Your task to perform on an android device: toggle location history Image 0: 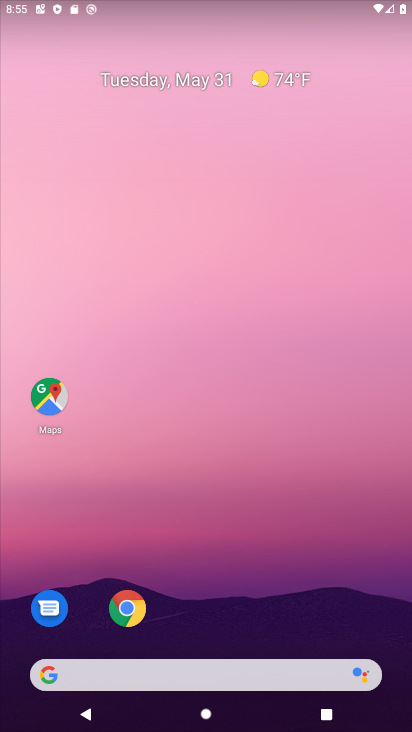
Step 0: drag from (241, 648) to (220, 0)
Your task to perform on an android device: toggle location history Image 1: 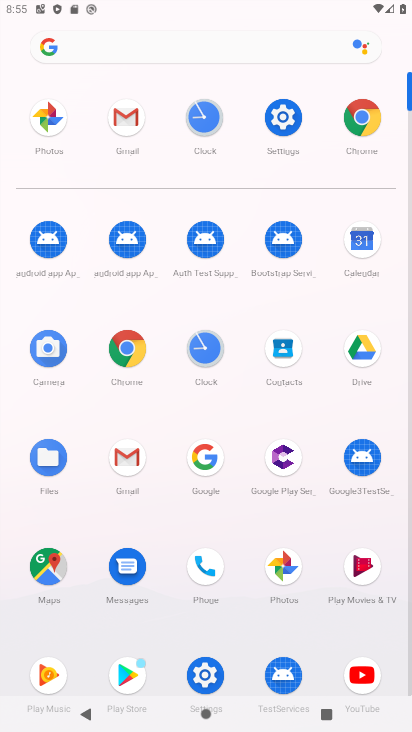
Step 1: click (278, 117)
Your task to perform on an android device: toggle location history Image 2: 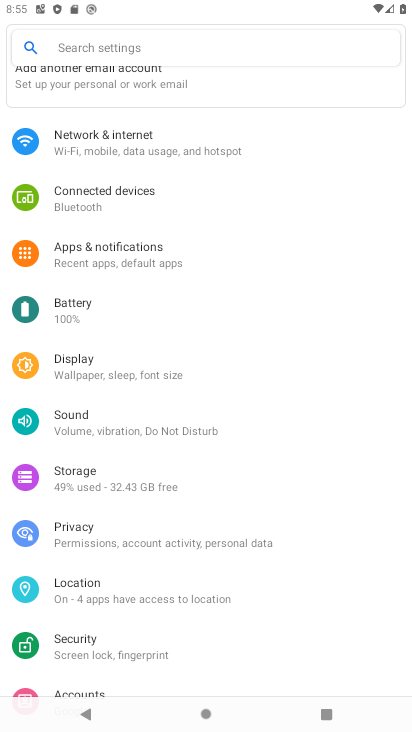
Step 2: click (42, 596)
Your task to perform on an android device: toggle location history Image 3: 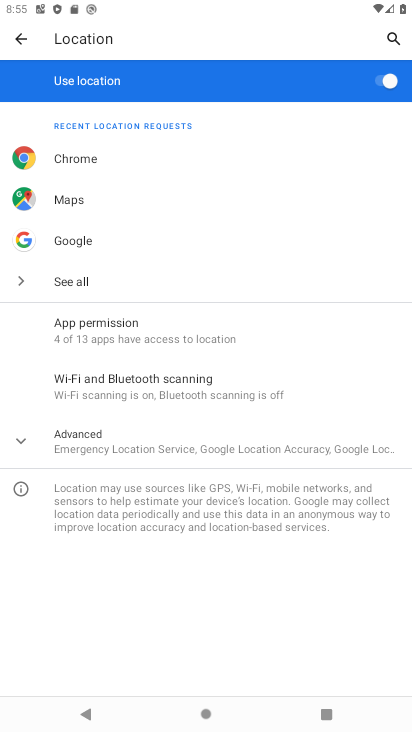
Step 3: click (119, 424)
Your task to perform on an android device: toggle location history Image 4: 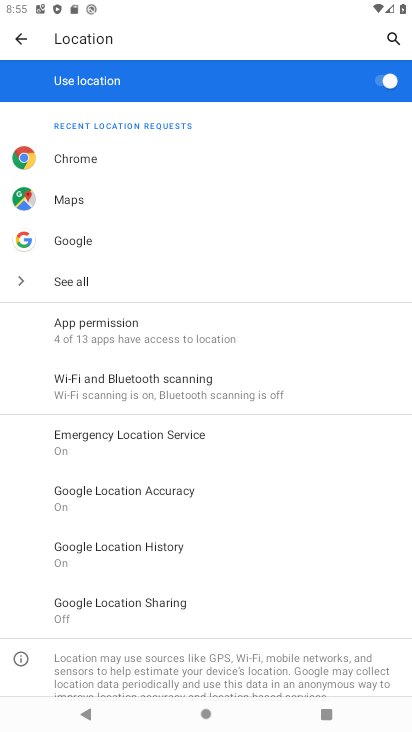
Step 4: click (104, 538)
Your task to perform on an android device: toggle location history Image 5: 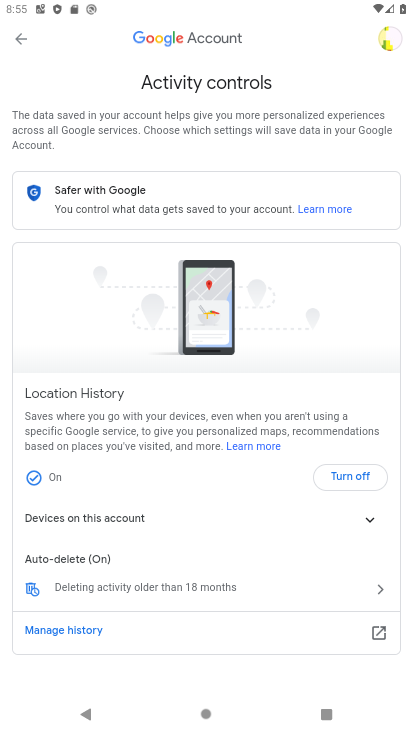
Step 5: click (359, 469)
Your task to perform on an android device: toggle location history Image 6: 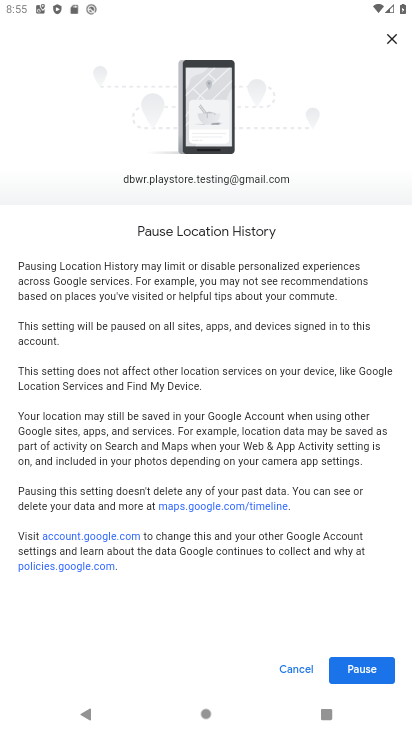
Step 6: click (359, 673)
Your task to perform on an android device: toggle location history Image 7: 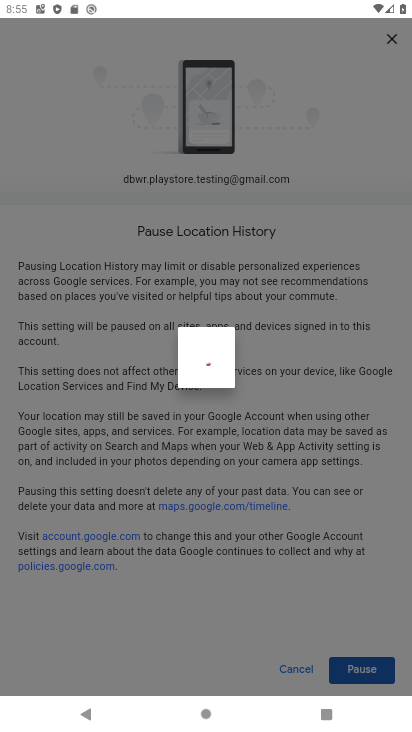
Step 7: click (359, 673)
Your task to perform on an android device: toggle location history Image 8: 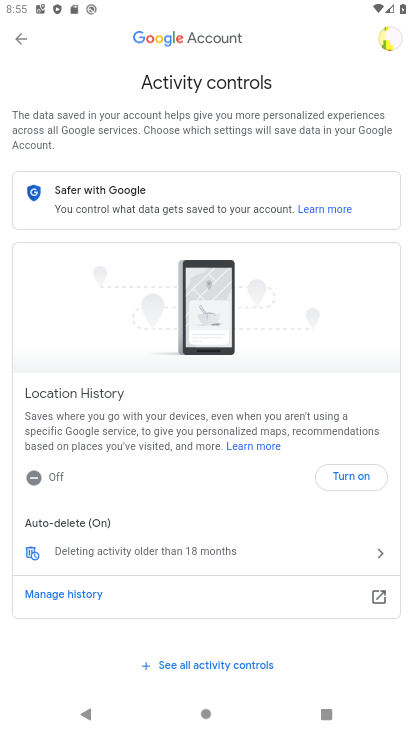
Step 8: task complete